Your task to perform on an android device: Is it going to rain tomorrow? Image 0: 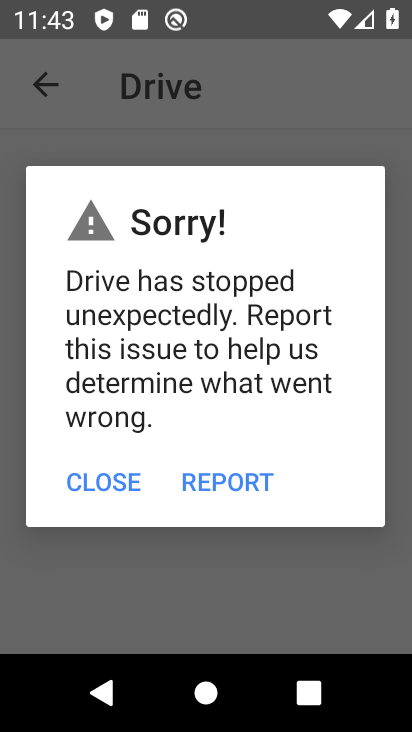
Step 0: press home button
Your task to perform on an android device: Is it going to rain tomorrow? Image 1: 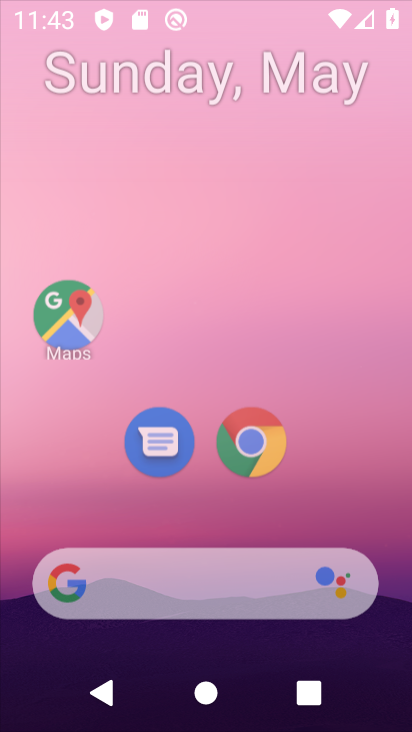
Step 1: press home button
Your task to perform on an android device: Is it going to rain tomorrow? Image 2: 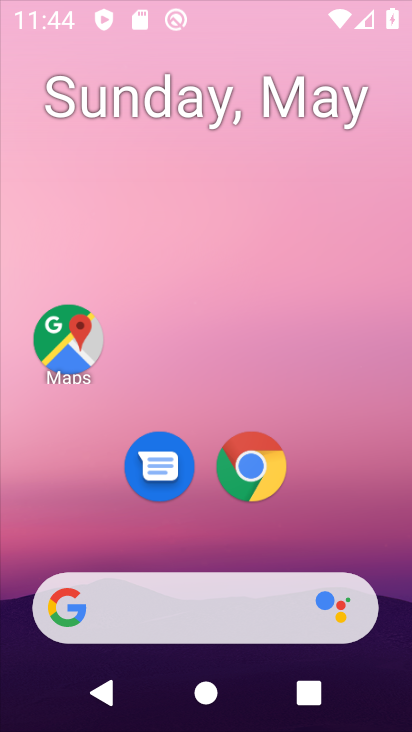
Step 2: press home button
Your task to perform on an android device: Is it going to rain tomorrow? Image 3: 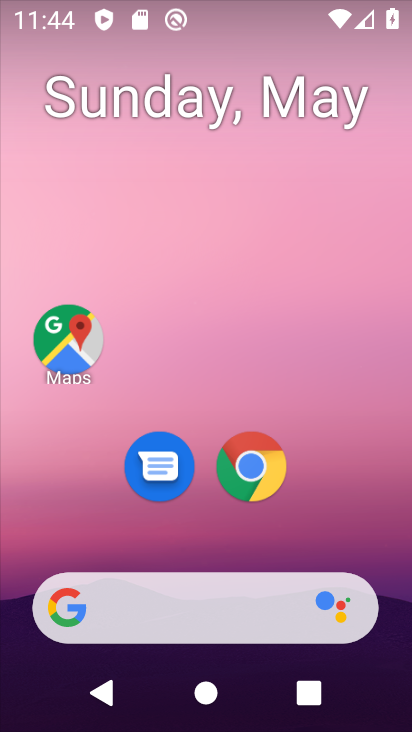
Step 3: press home button
Your task to perform on an android device: Is it going to rain tomorrow? Image 4: 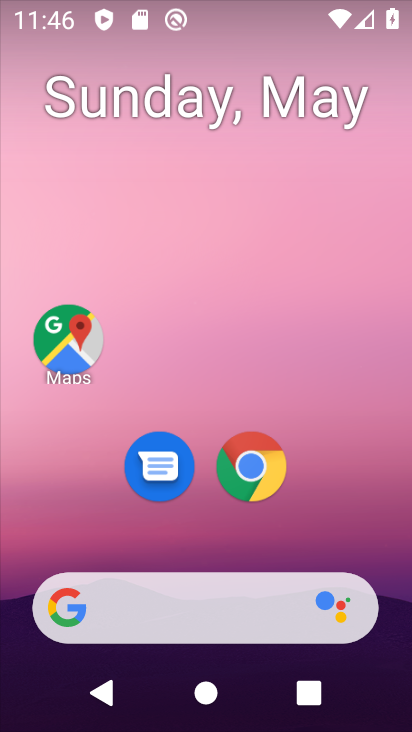
Step 4: click (244, 472)
Your task to perform on an android device: Is it going to rain tomorrow? Image 5: 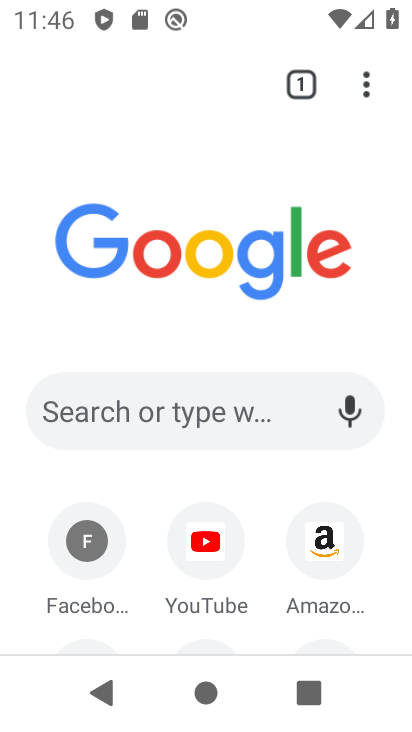
Step 5: click (201, 426)
Your task to perform on an android device: Is it going to rain tomorrow? Image 6: 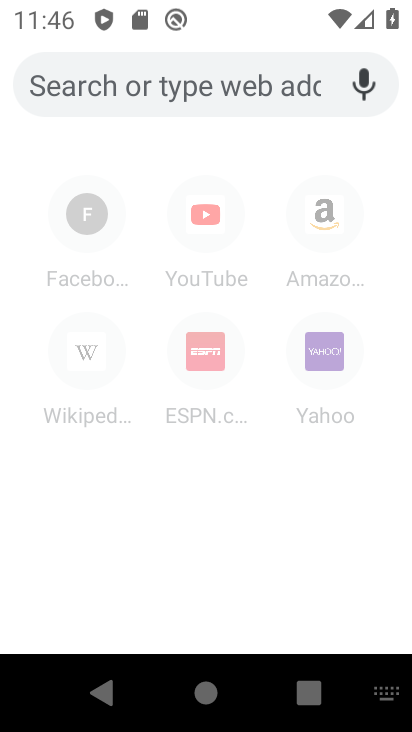
Step 6: type "Is it going to rain tomorrow?"
Your task to perform on an android device: Is it going to rain tomorrow? Image 7: 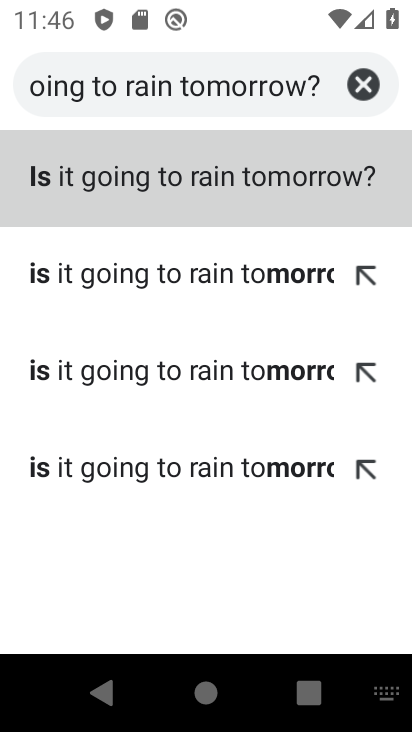
Step 7: click (69, 168)
Your task to perform on an android device: Is it going to rain tomorrow? Image 8: 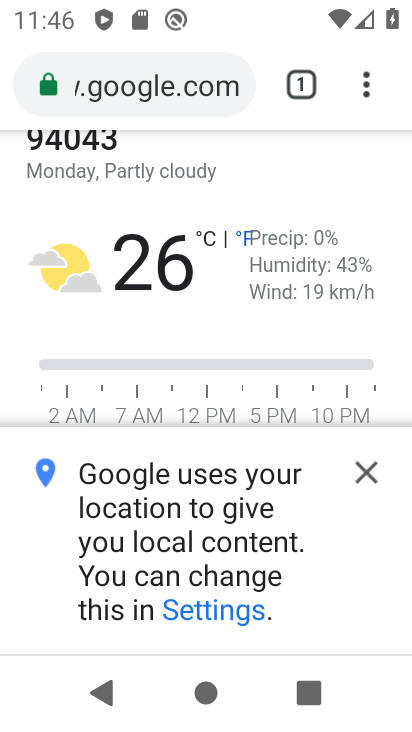
Step 8: task complete